Your task to perform on an android device: Is it going to rain today? Image 0: 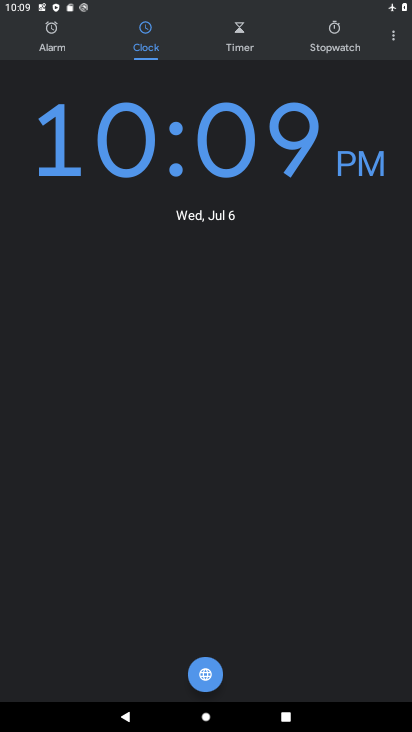
Step 0: press home button
Your task to perform on an android device: Is it going to rain today? Image 1: 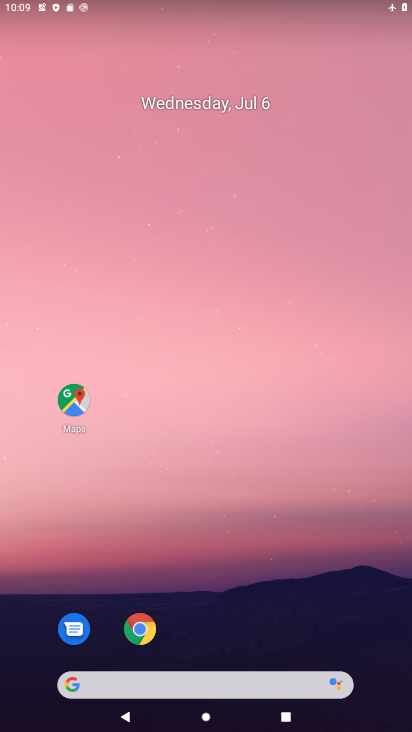
Step 1: drag from (223, 623) to (262, 103)
Your task to perform on an android device: Is it going to rain today? Image 2: 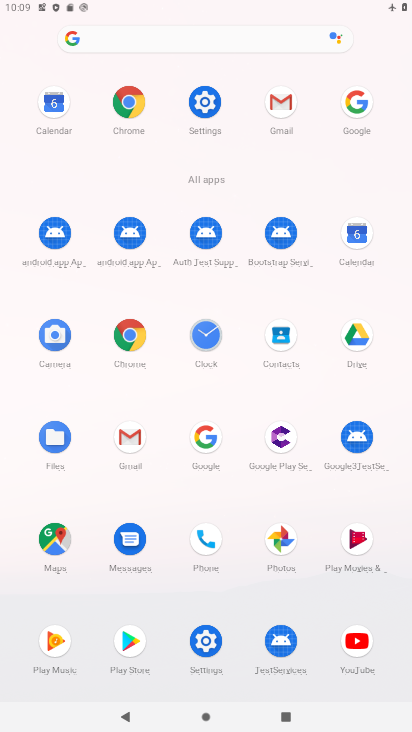
Step 2: click (226, 436)
Your task to perform on an android device: Is it going to rain today? Image 3: 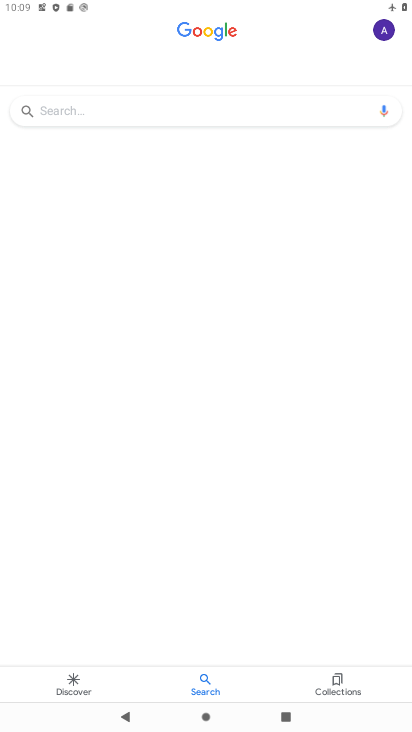
Step 3: click (153, 110)
Your task to perform on an android device: Is it going to rain today? Image 4: 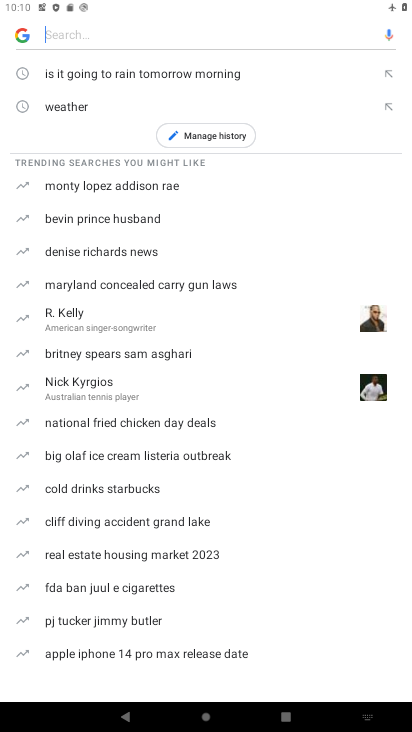
Step 4: type "is it going to rain today"
Your task to perform on an android device: Is it going to rain today? Image 5: 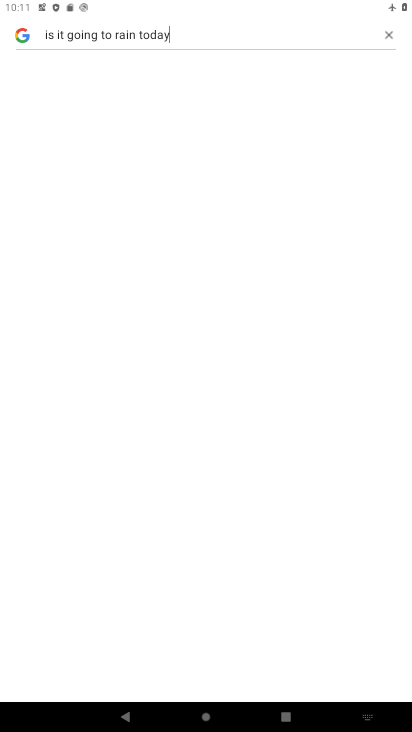
Step 5: task complete